Your task to perform on an android device: Go to sound settings Image 0: 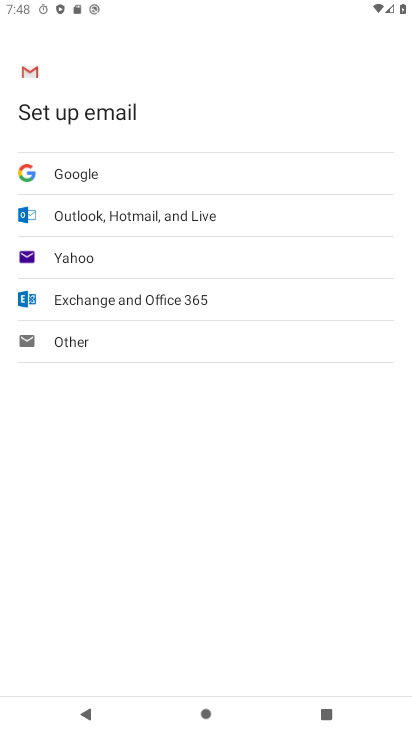
Step 0: press home button
Your task to perform on an android device: Go to sound settings Image 1: 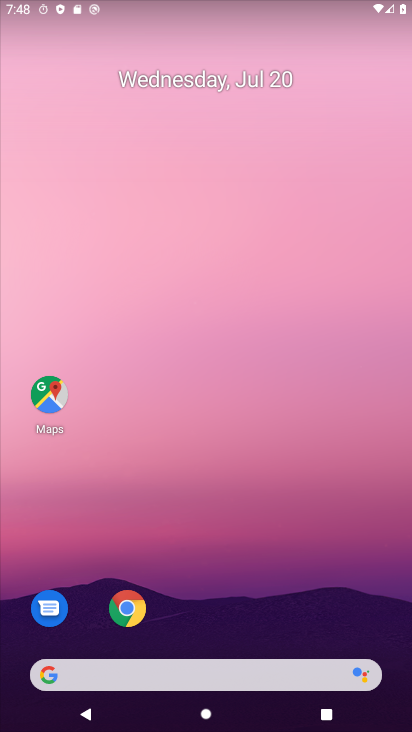
Step 1: drag from (243, 633) to (274, 16)
Your task to perform on an android device: Go to sound settings Image 2: 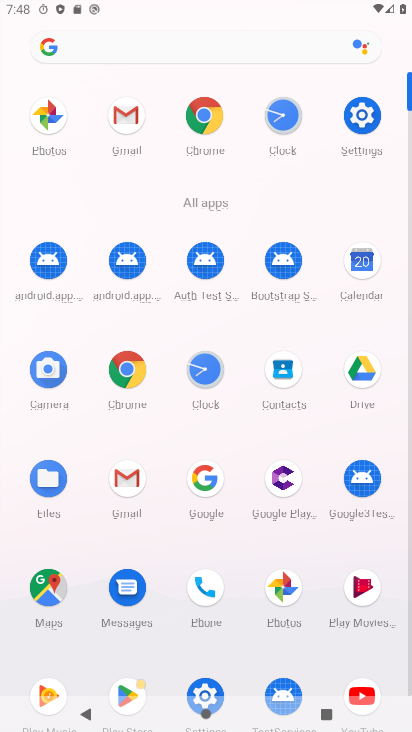
Step 2: click (374, 139)
Your task to perform on an android device: Go to sound settings Image 3: 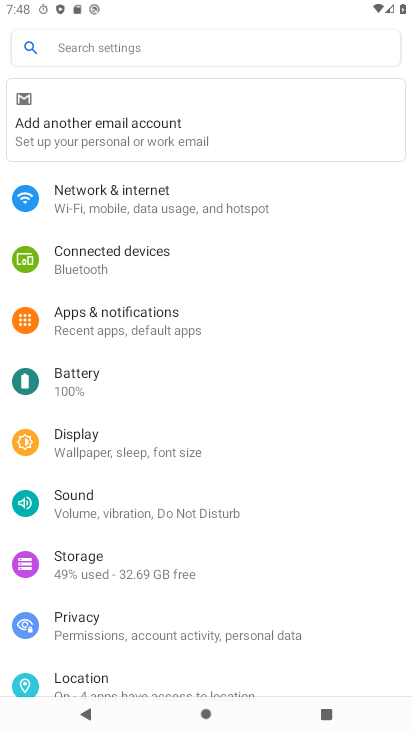
Step 3: click (99, 518)
Your task to perform on an android device: Go to sound settings Image 4: 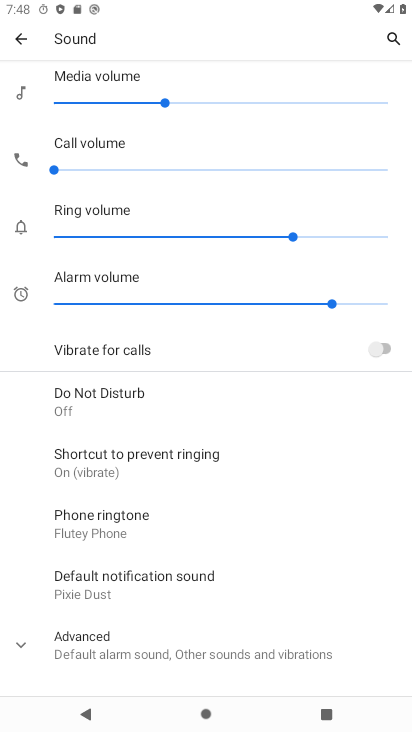
Step 4: task complete